Your task to perform on an android device: Search for pizza restaurants on Maps Image 0: 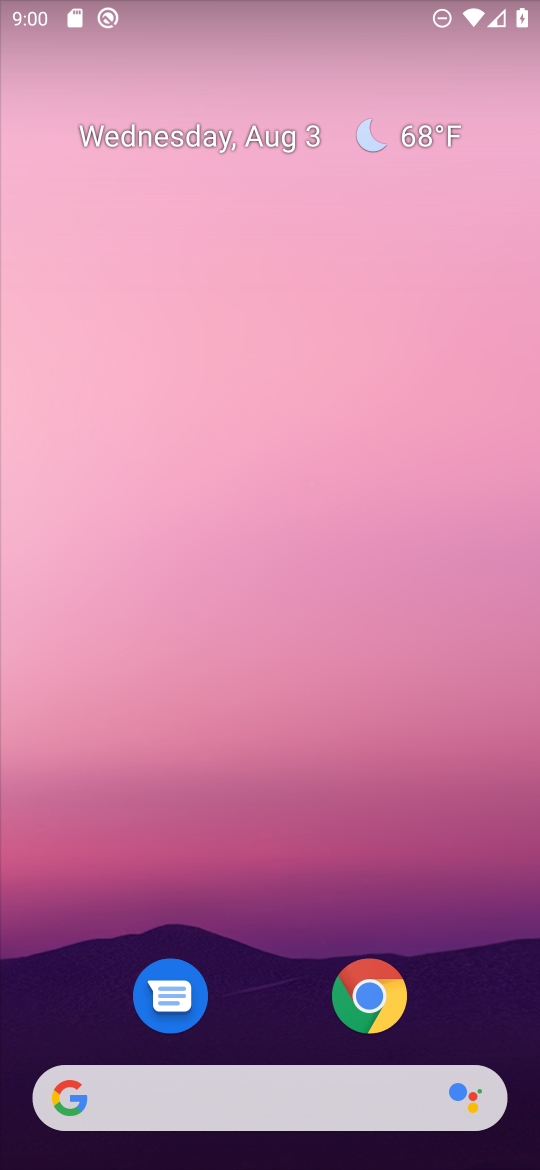
Step 0: drag from (310, 831) to (319, 0)
Your task to perform on an android device: Search for pizza restaurants on Maps Image 1: 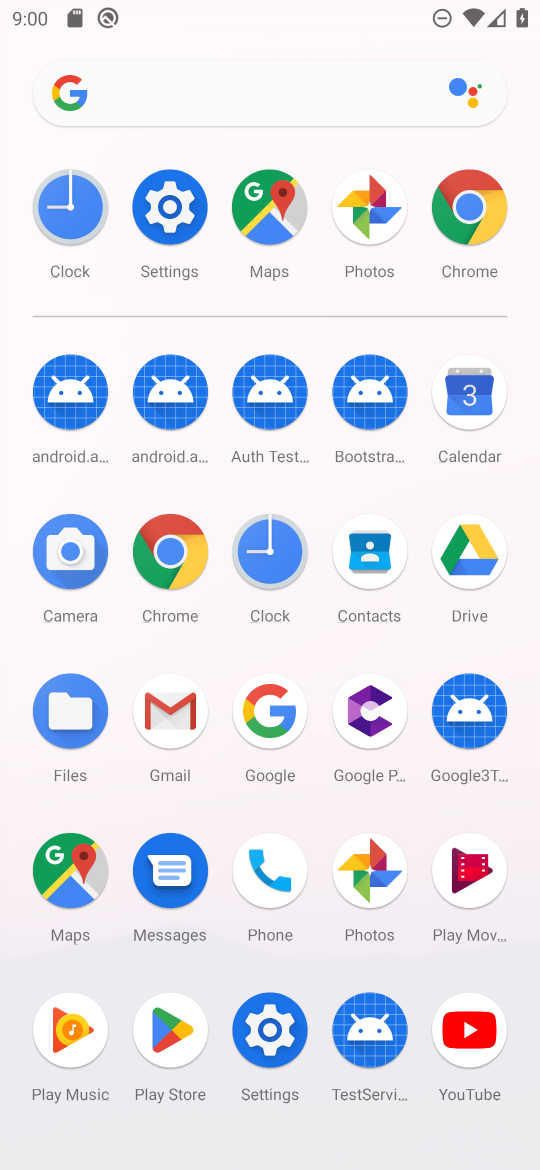
Step 1: click (275, 204)
Your task to perform on an android device: Search for pizza restaurants on Maps Image 2: 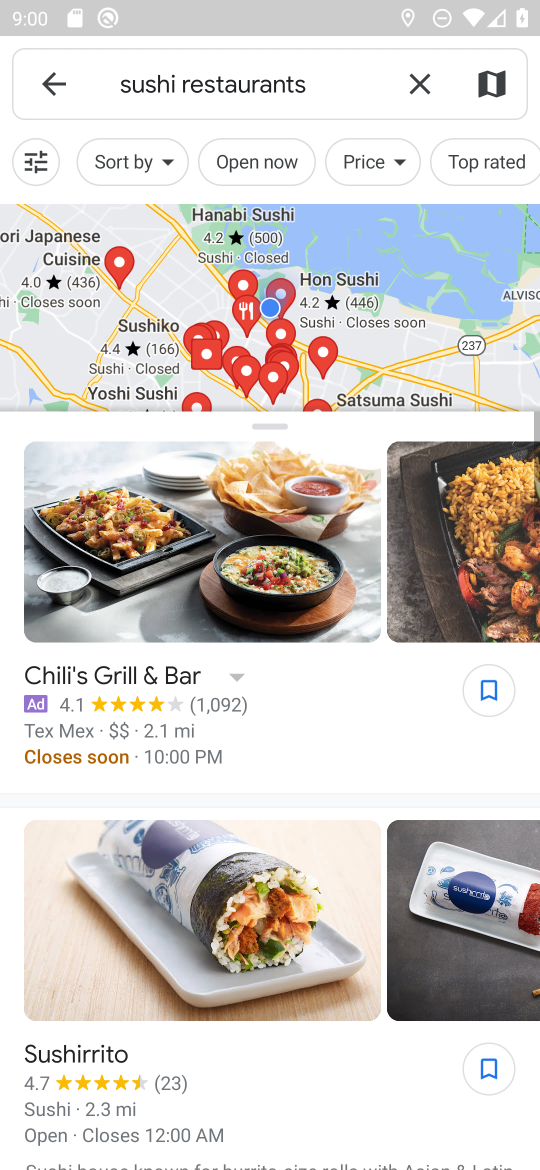
Step 2: click (413, 74)
Your task to perform on an android device: Search for pizza restaurants on Maps Image 3: 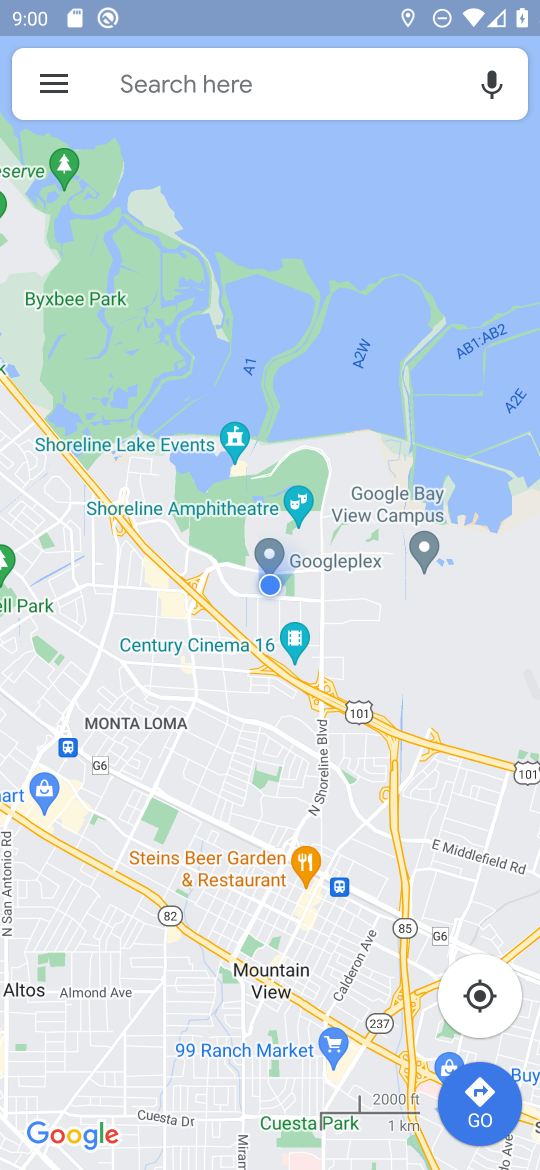
Step 3: click (326, 82)
Your task to perform on an android device: Search for pizza restaurants on Maps Image 4: 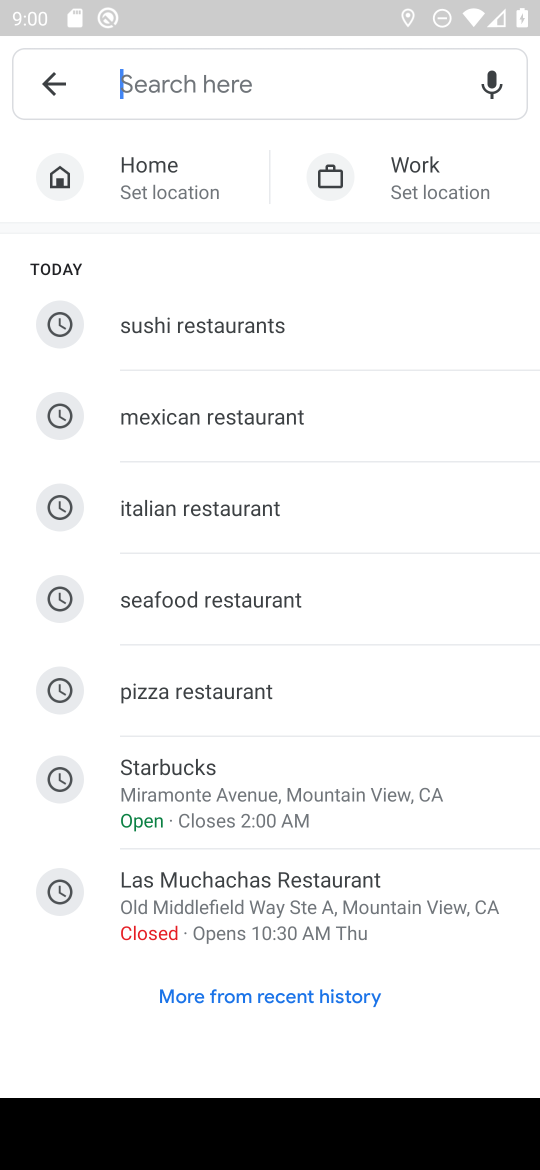
Step 4: click (251, 684)
Your task to perform on an android device: Search for pizza restaurants on Maps Image 5: 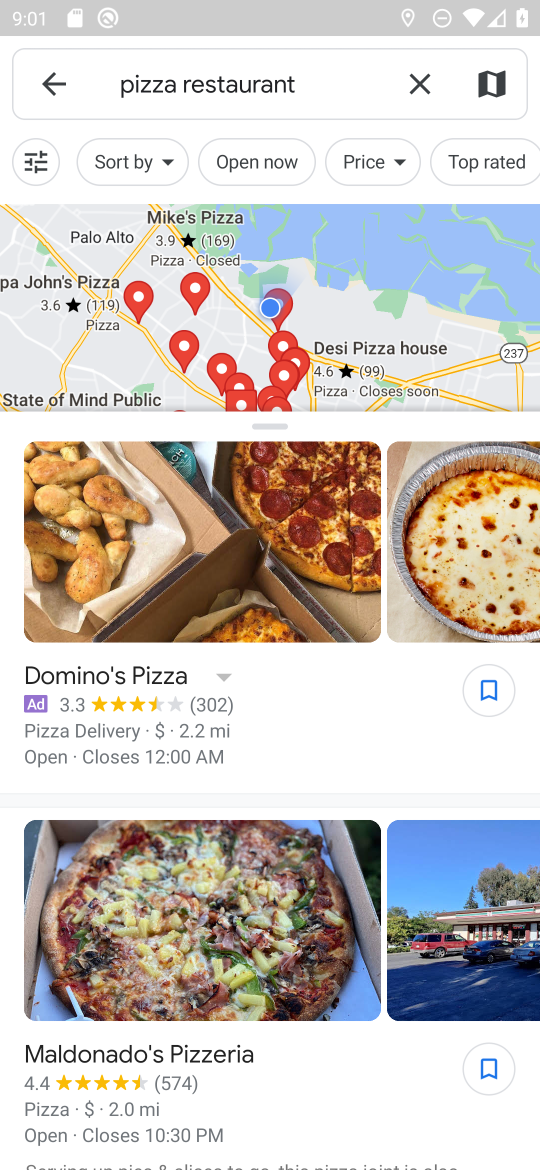
Step 5: task complete